Your task to perform on an android device: uninstall "Contacts" Image 0: 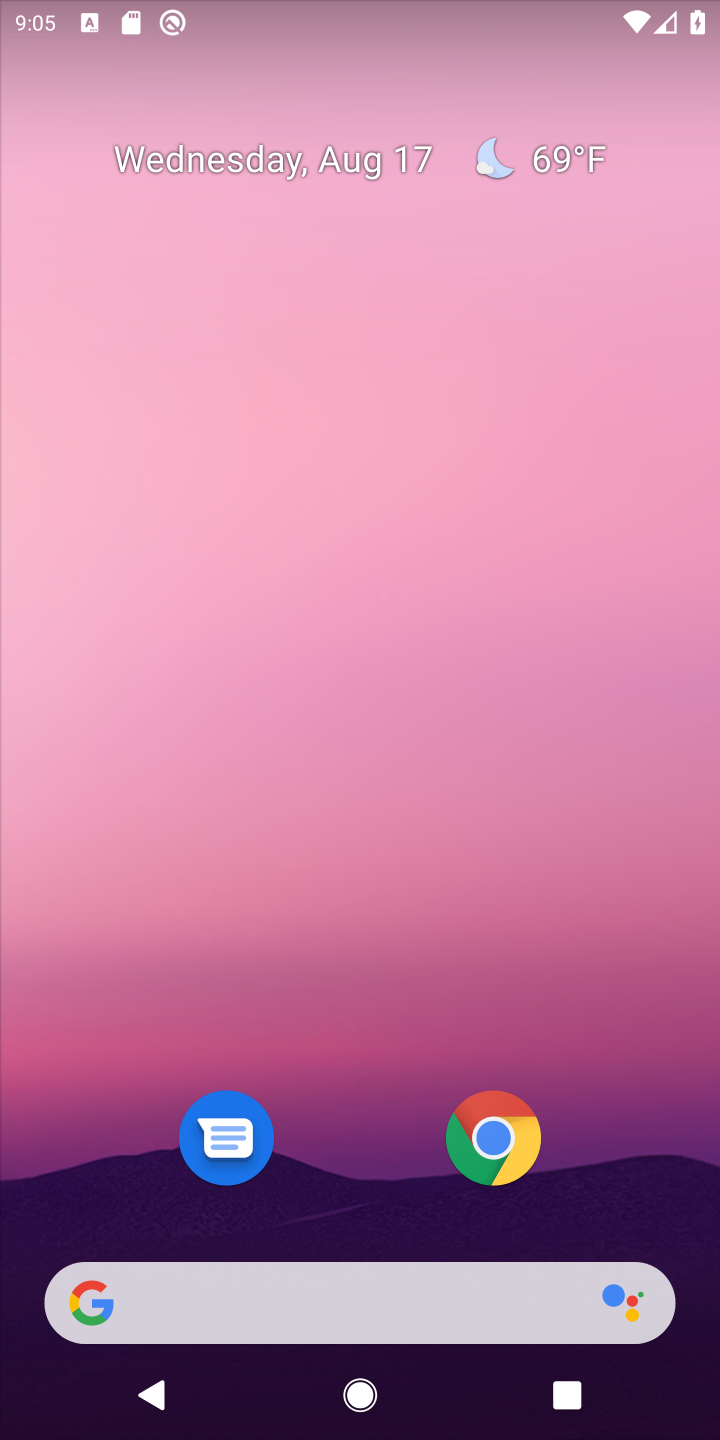
Step 0: drag from (257, 775) to (243, 337)
Your task to perform on an android device: uninstall "Contacts" Image 1: 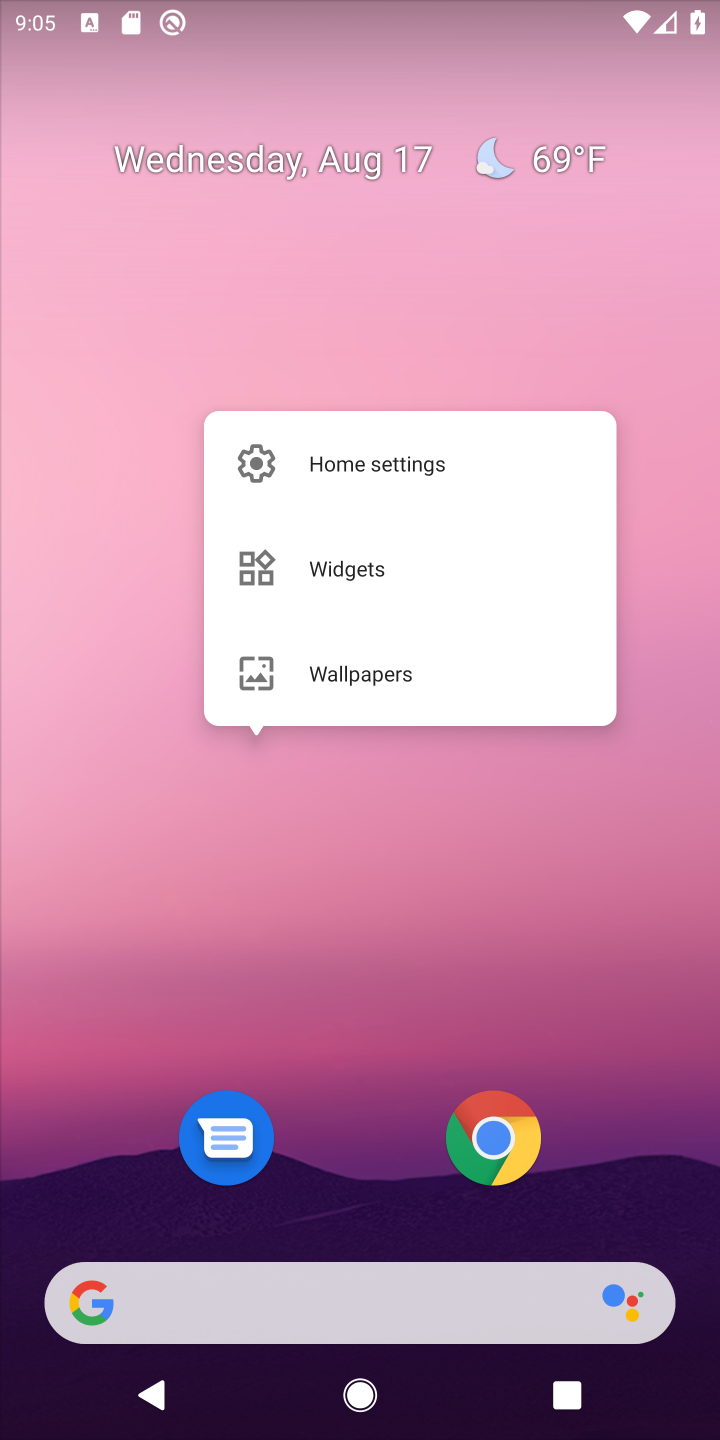
Step 1: click (308, 1201)
Your task to perform on an android device: uninstall "Contacts" Image 2: 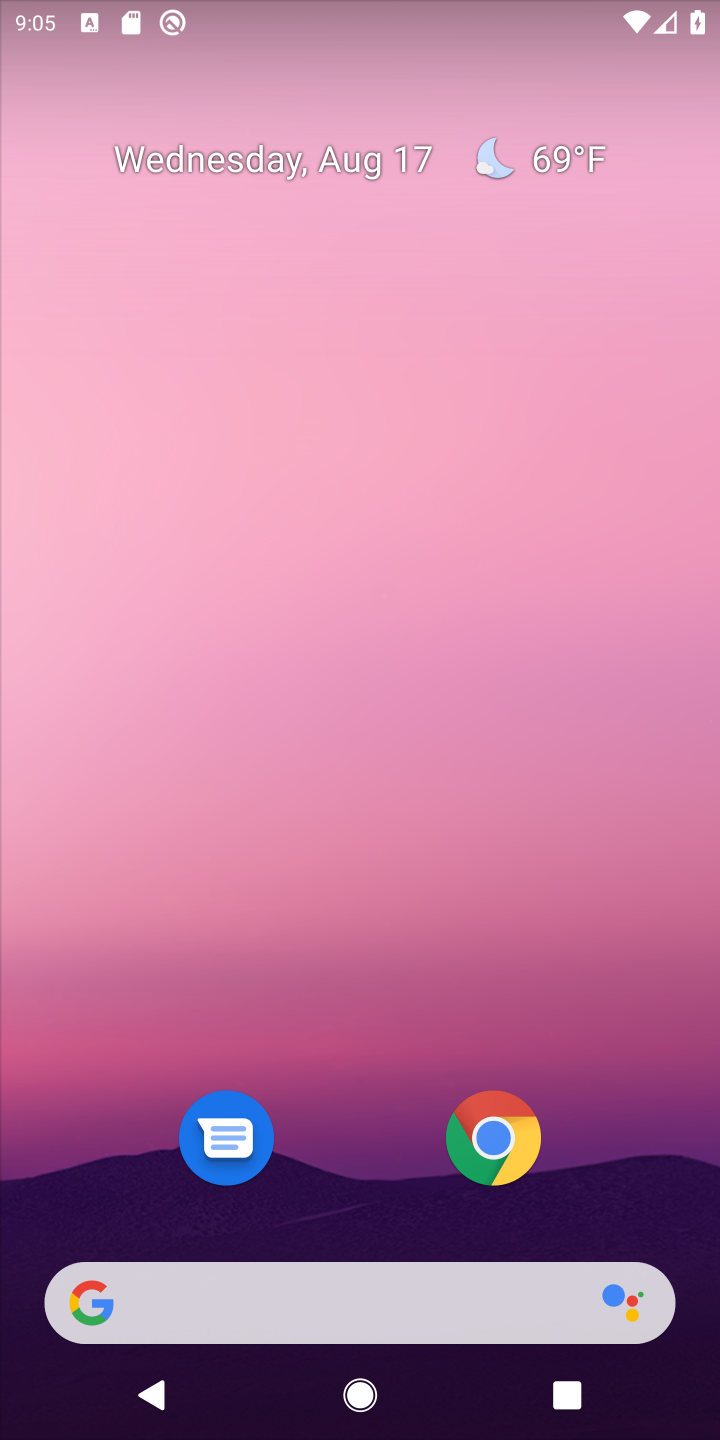
Step 2: drag from (383, 1232) to (464, 110)
Your task to perform on an android device: uninstall "Contacts" Image 3: 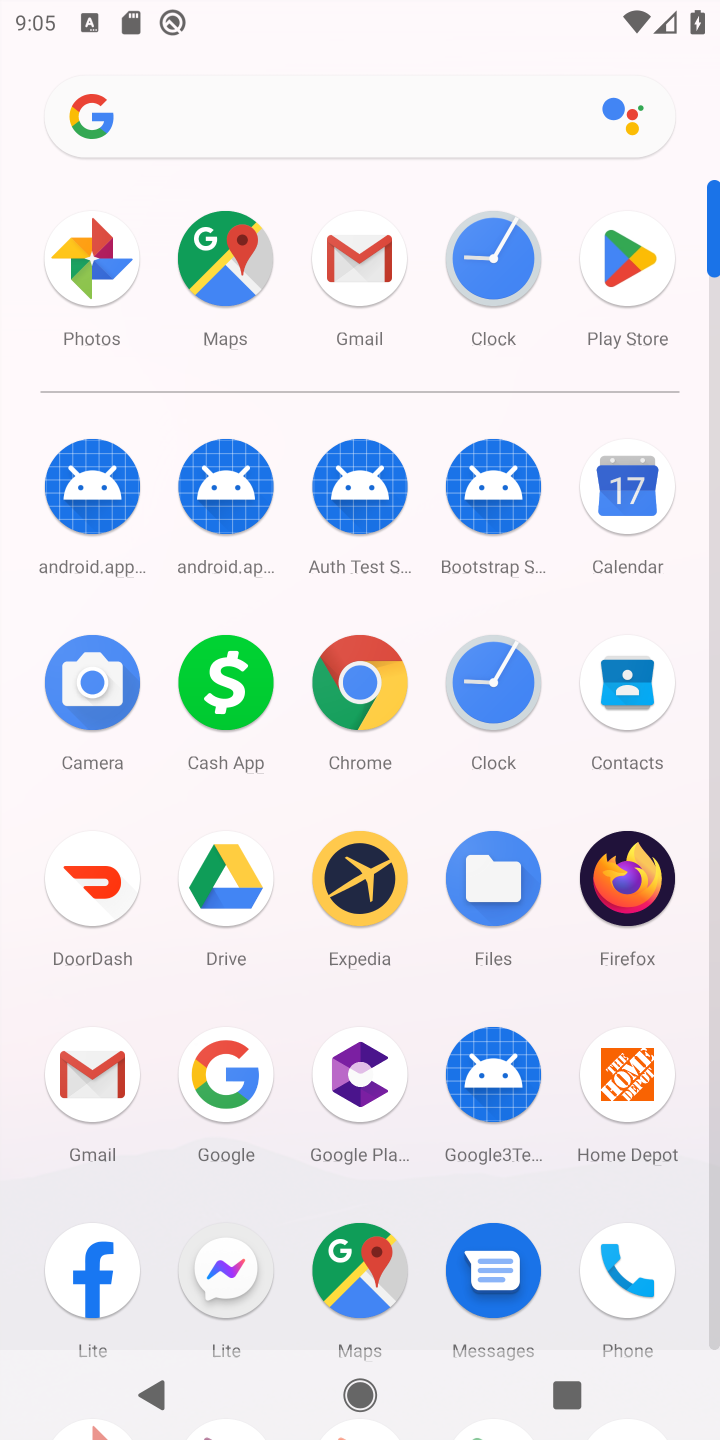
Step 3: click (625, 261)
Your task to perform on an android device: uninstall "Contacts" Image 4: 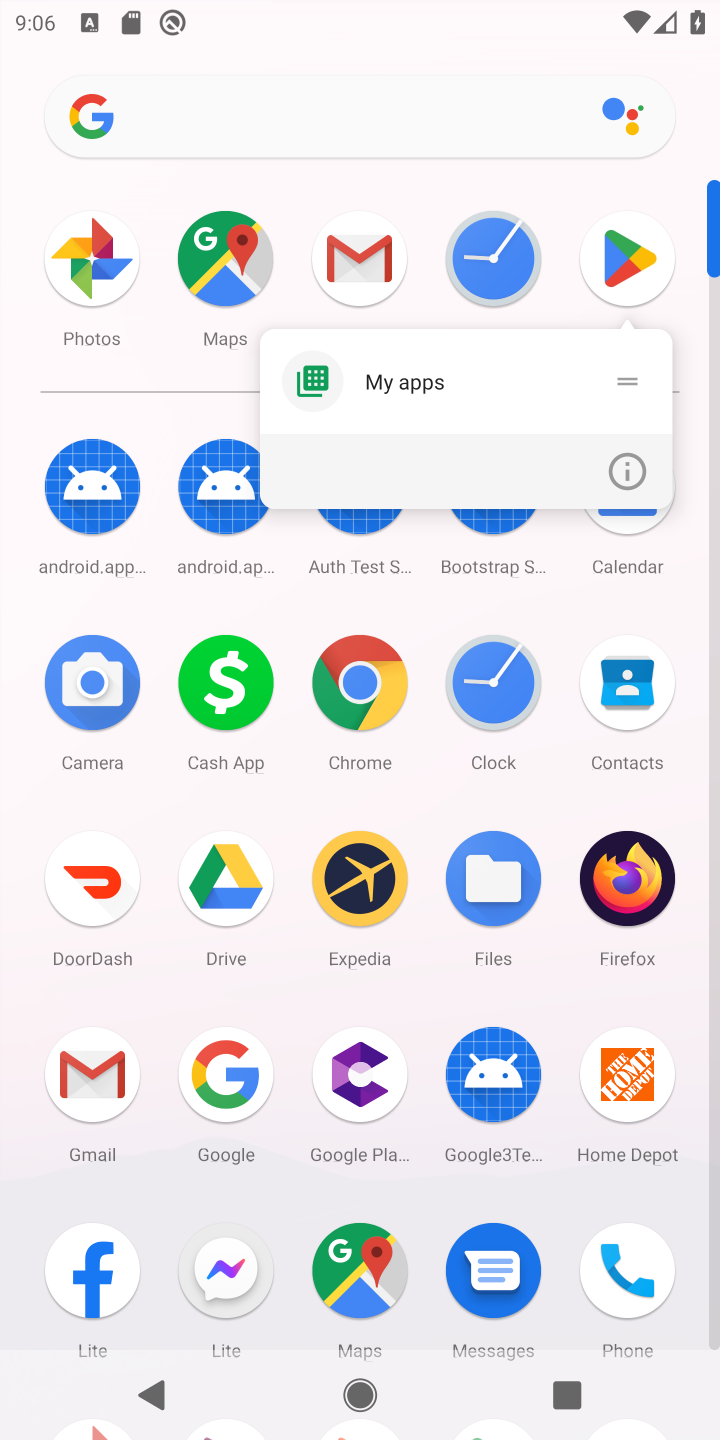
Step 4: click (643, 294)
Your task to perform on an android device: uninstall "Contacts" Image 5: 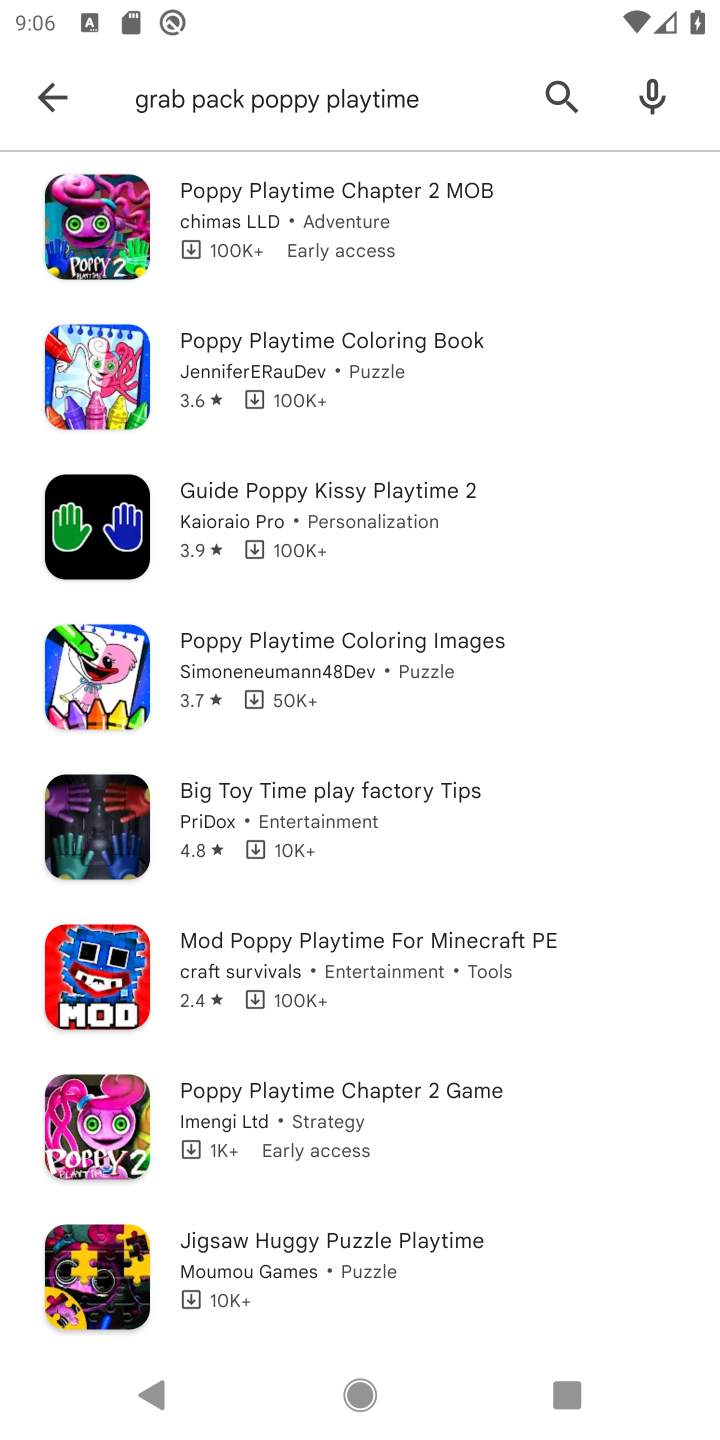
Step 5: click (58, 90)
Your task to perform on an android device: uninstall "Contacts" Image 6: 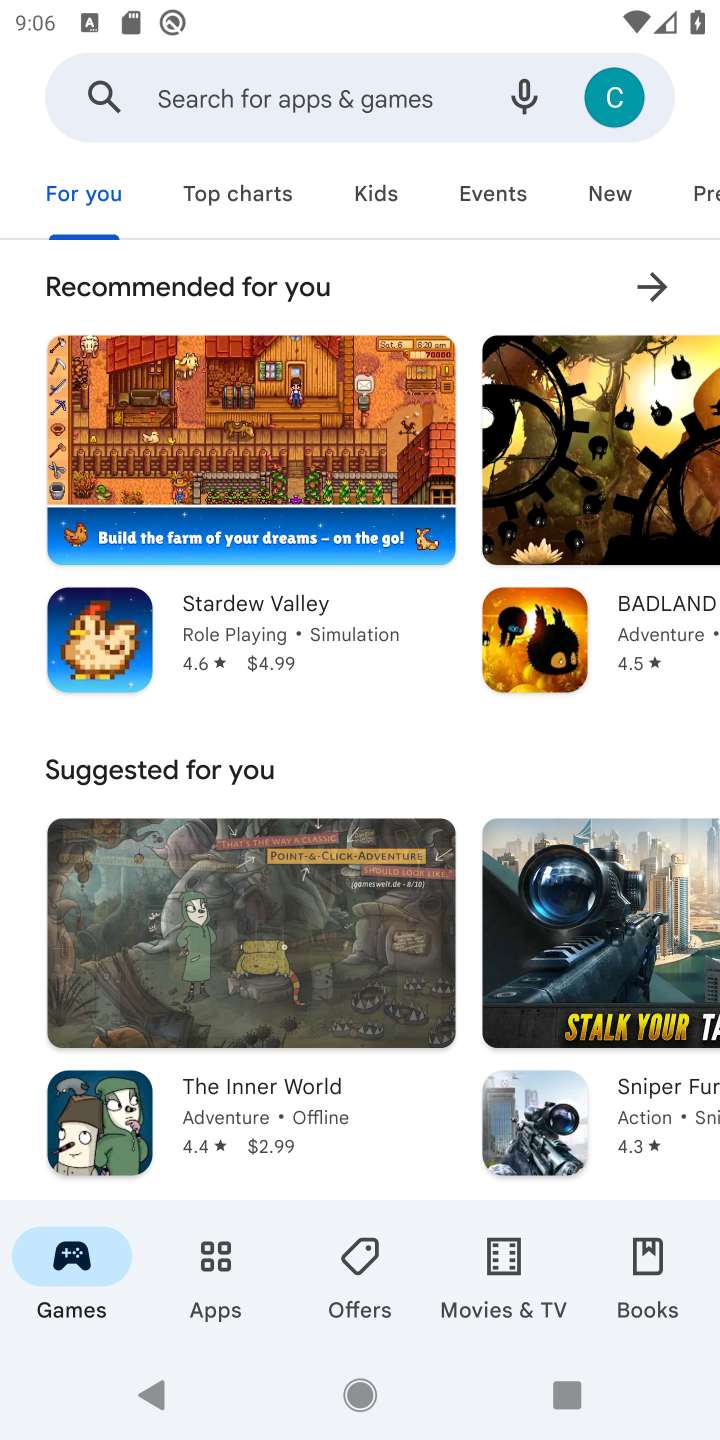
Step 6: click (207, 92)
Your task to perform on an android device: uninstall "Contacts" Image 7: 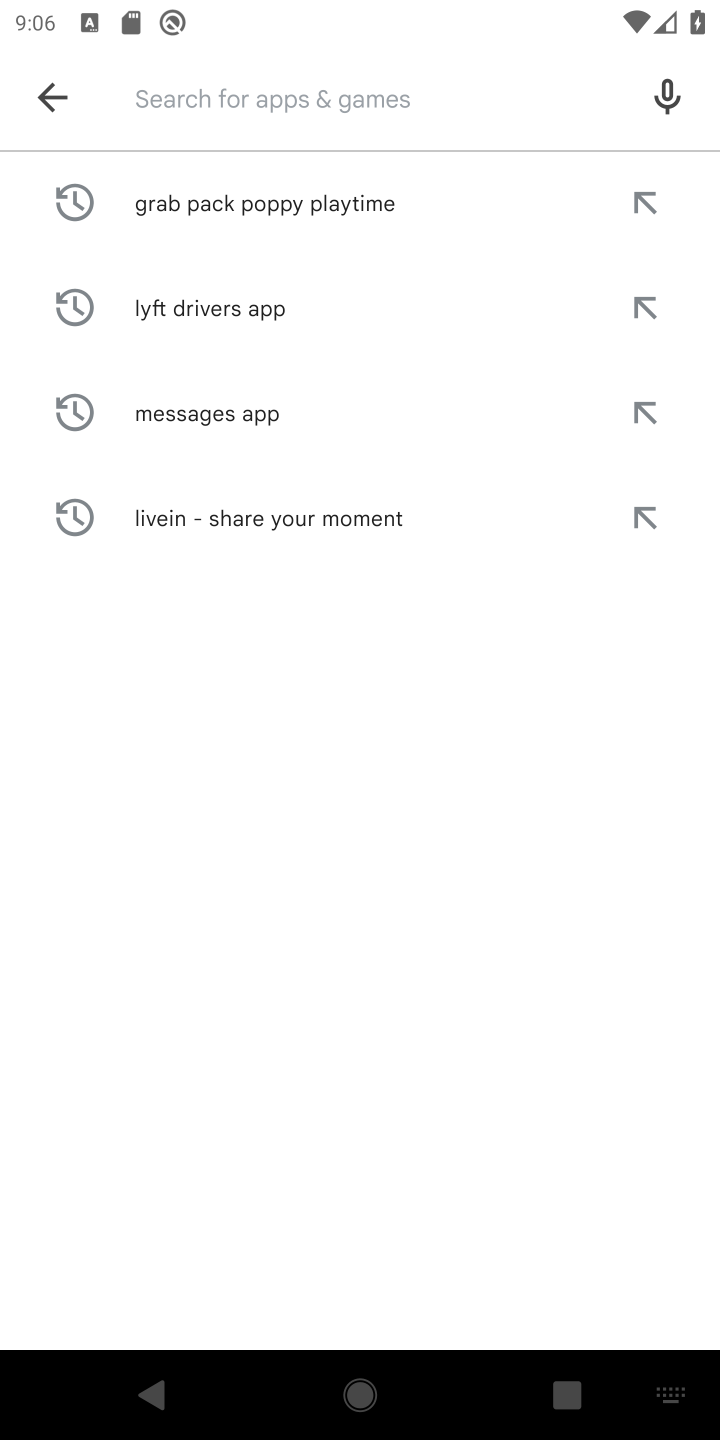
Step 7: type "contact "
Your task to perform on an android device: uninstall "Contacts" Image 8: 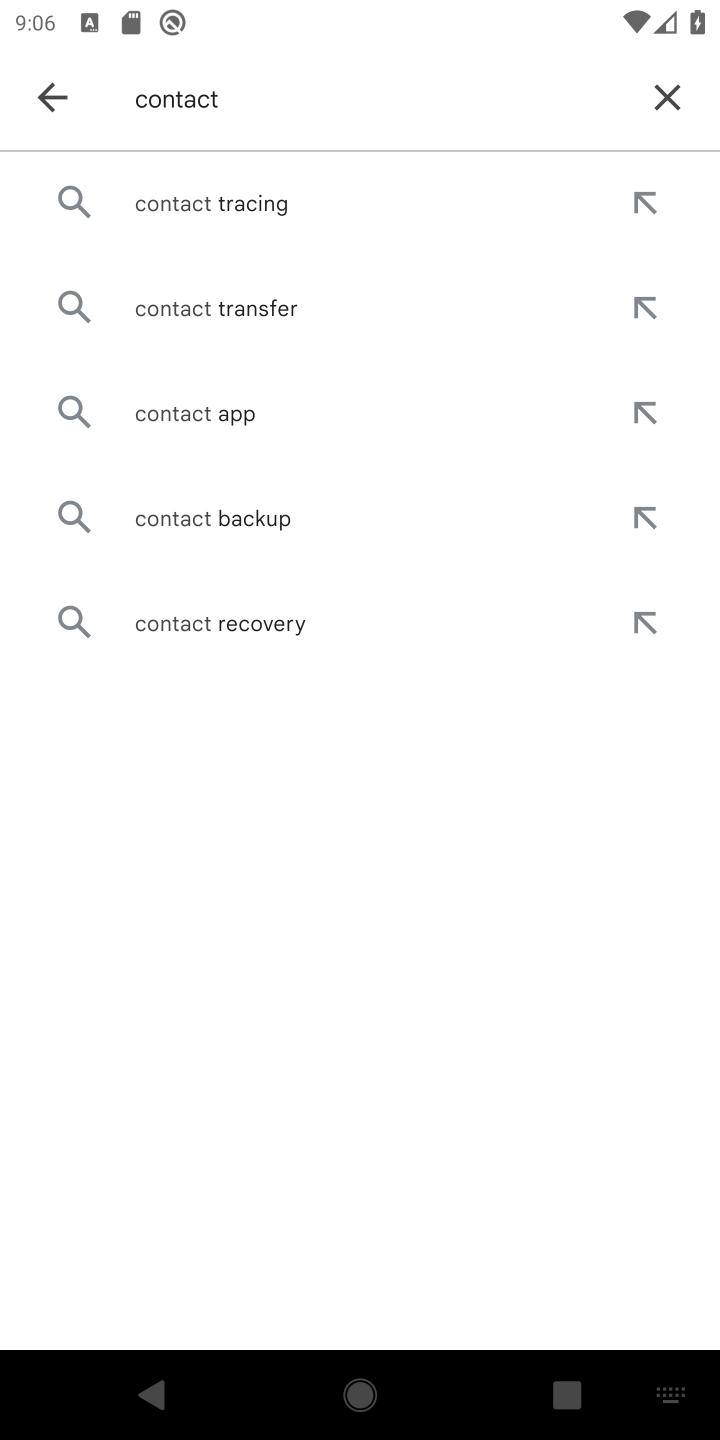
Step 8: click (238, 396)
Your task to perform on an android device: uninstall "Contacts" Image 9: 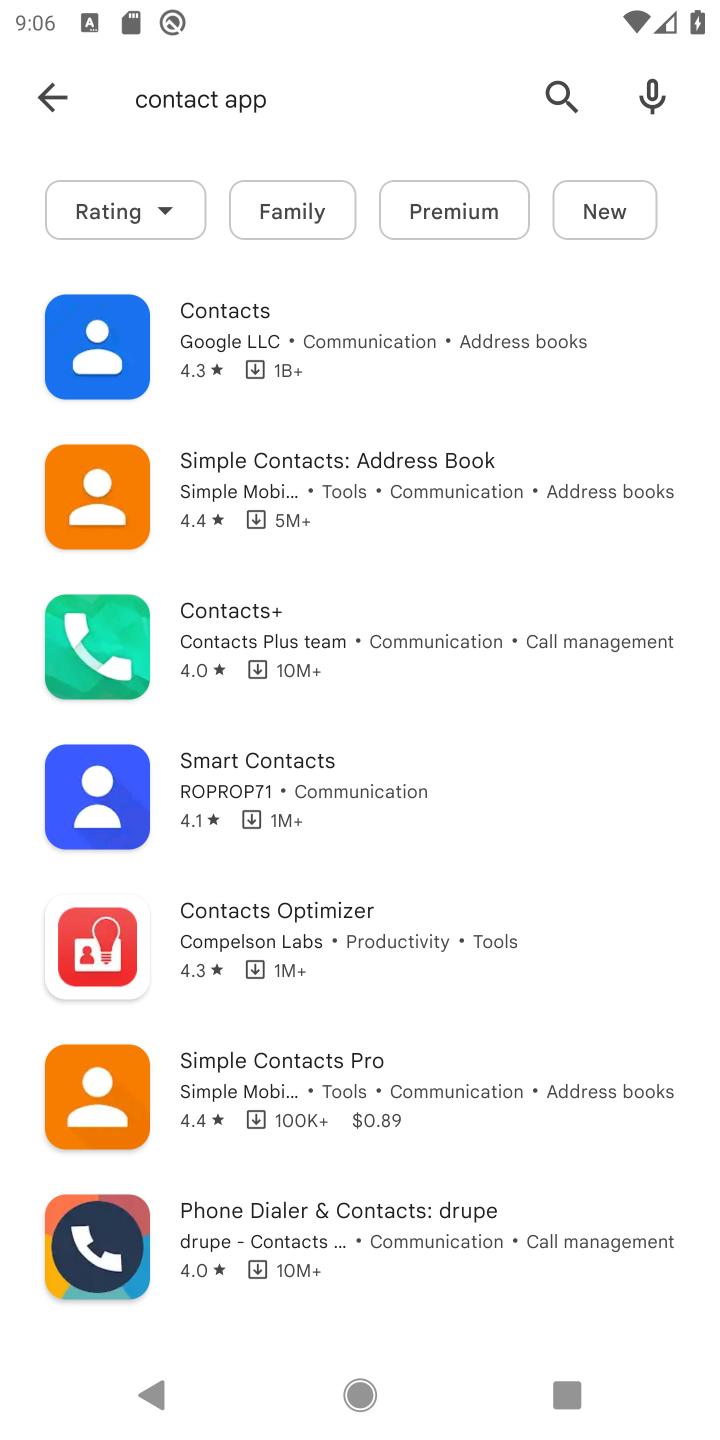
Step 9: click (254, 348)
Your task to perform on an android device: uninstall "Contacts" Image 10: 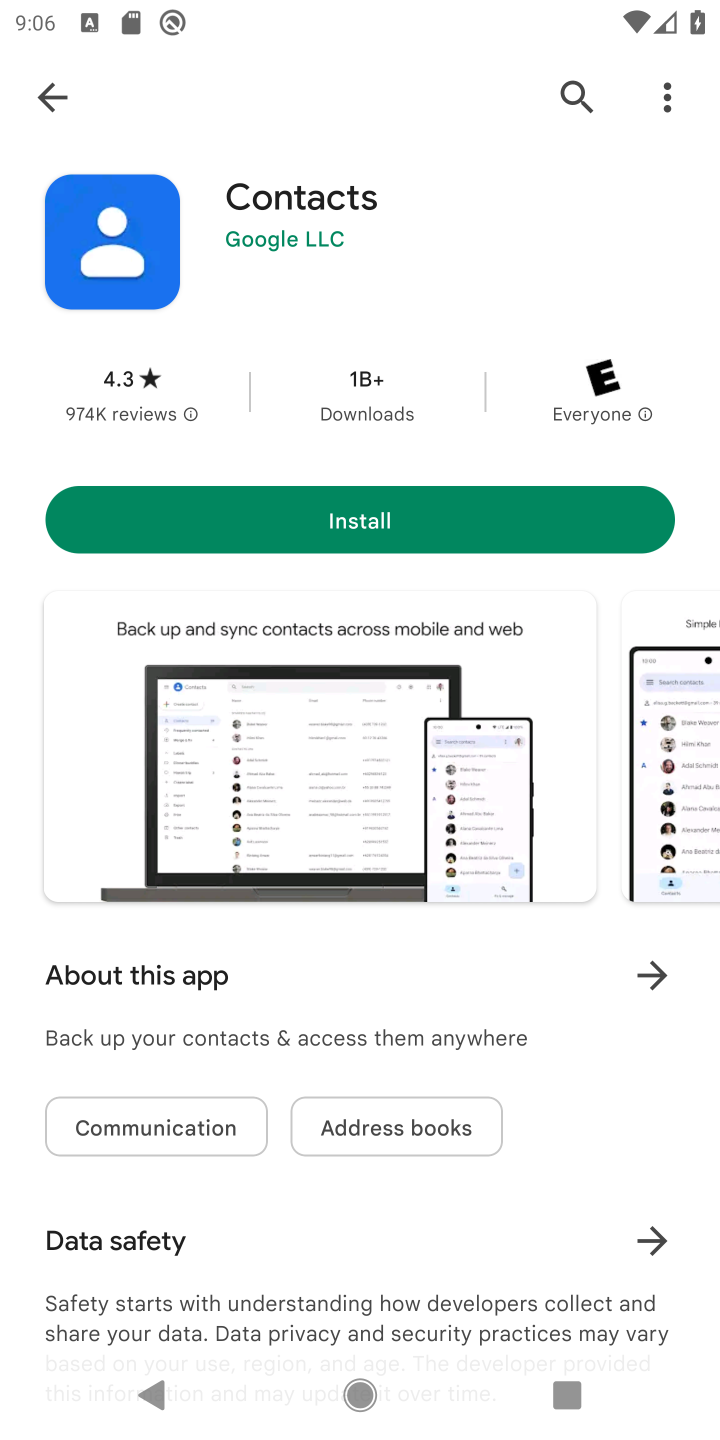
Step 10: task complete